Your task to perform on an android device: toggle priority inbox in the gmail app Image 0: 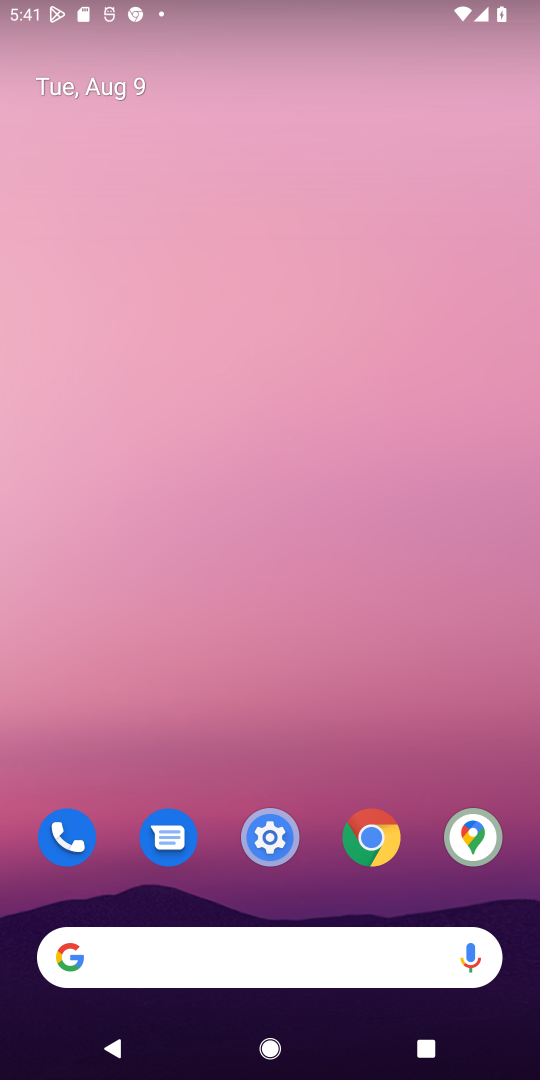
Step 0: drag from (125, 809) to (156, 6)
Your task to perform on an android device: toggle priority inbox in the gmail app Image 1: 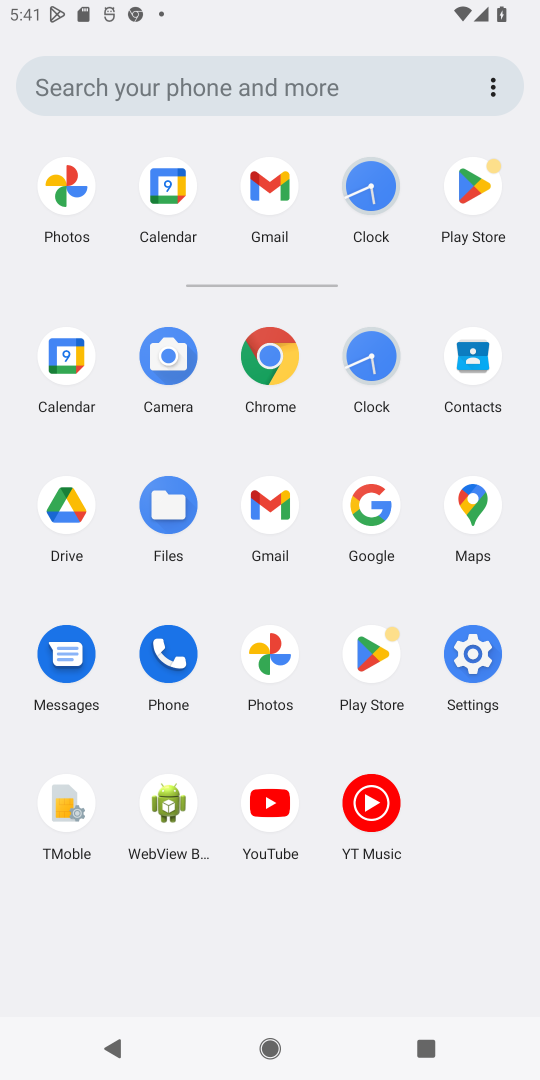
Step 1: click (257, 499)
Your task to perform on an android device: toggle priority inbox in the gmail app Image 2: 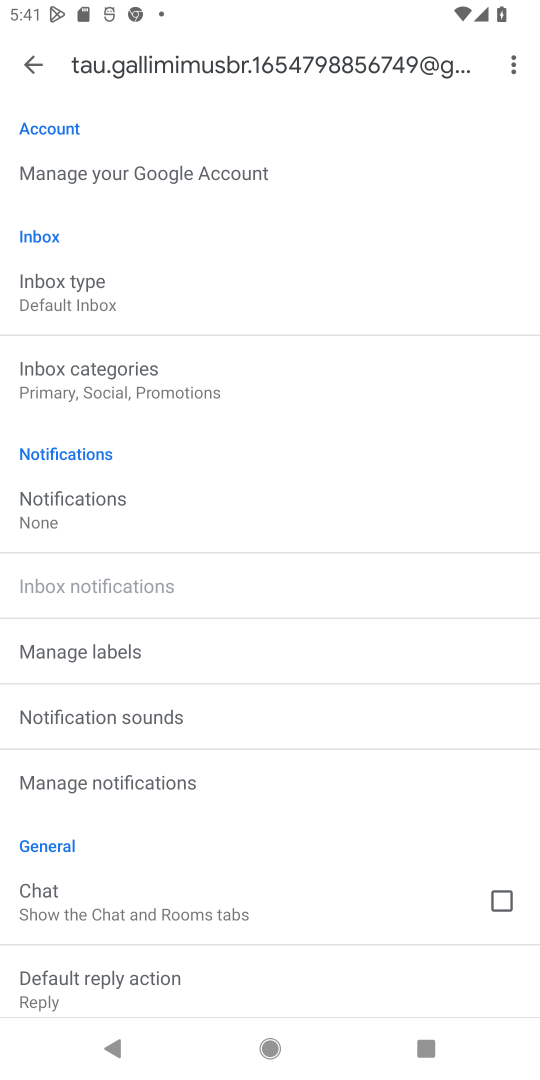
Step 2: click (118, 309)
Your task to perform on an android device: toggle priority inbox in the gmail app Image 3: 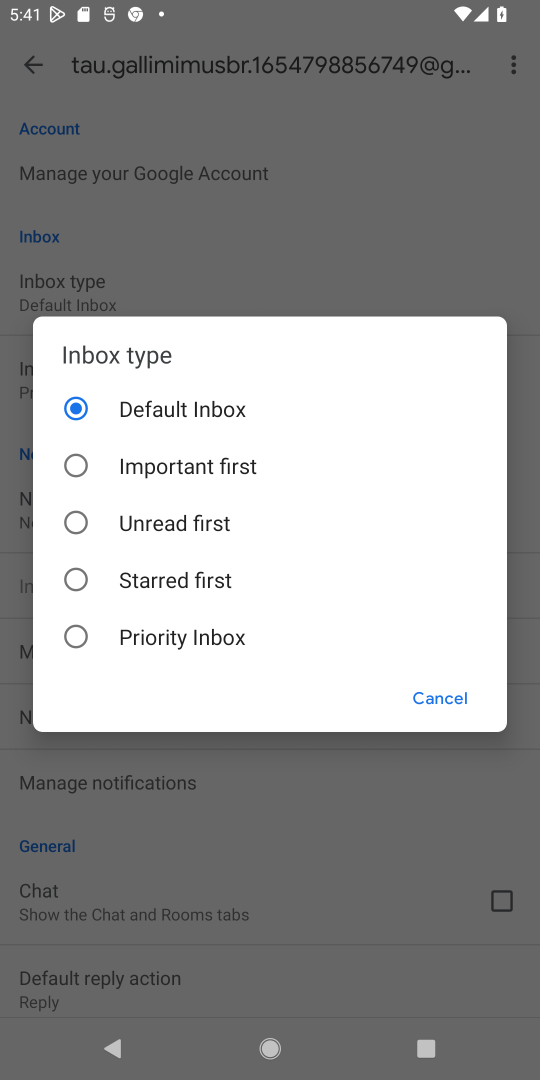
Step 3: click (168, 622)
Your task to perform on an android device: toggle priority inbox in the gmail app Image 4: 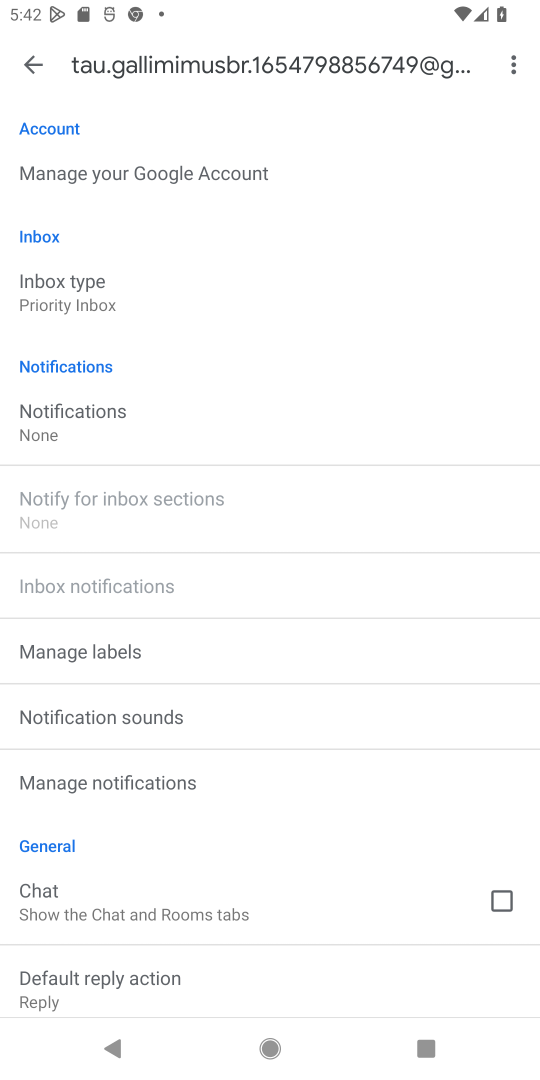
Step 4: task complete